Your task to perform on an android device: Go to Reddit.com Image 0: 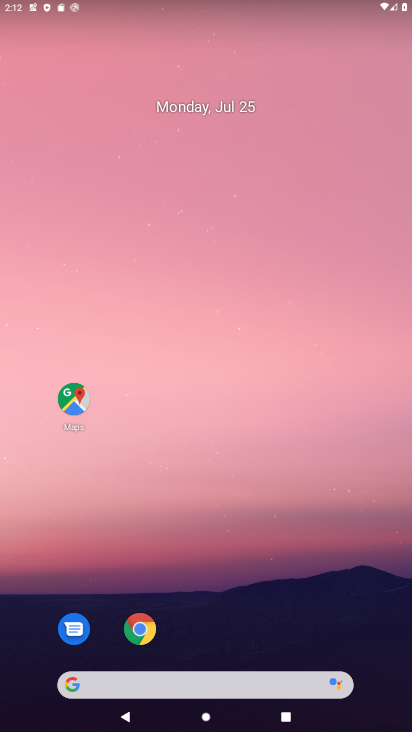
Step 0: click (143, 627)
Your task to perform on an android device: Go to Reddit.com Image 1: 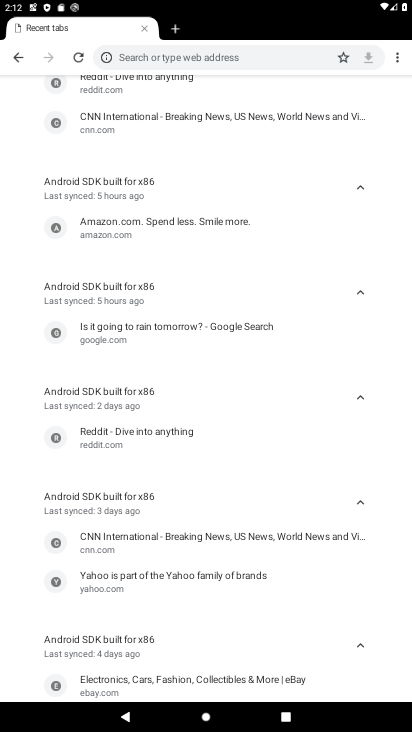
Step 1: drag from (221, 236) to (212, 311)
Your task to perform on an android device: Go to Reddit.com Image 2: 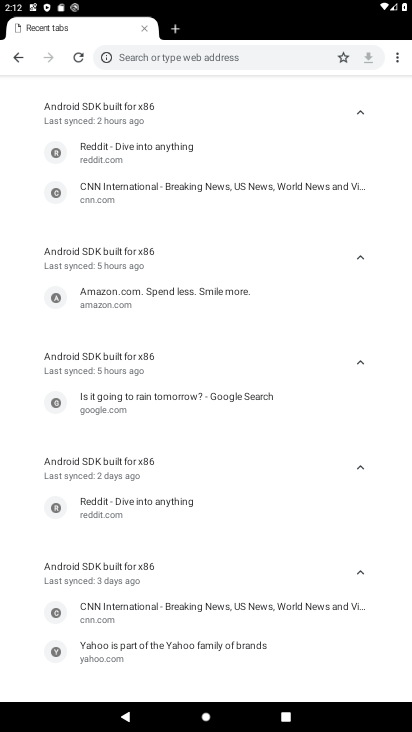
Step 2: click (126, 516)
Your task to perform on an android device: Go to Reddit.com Image 3: 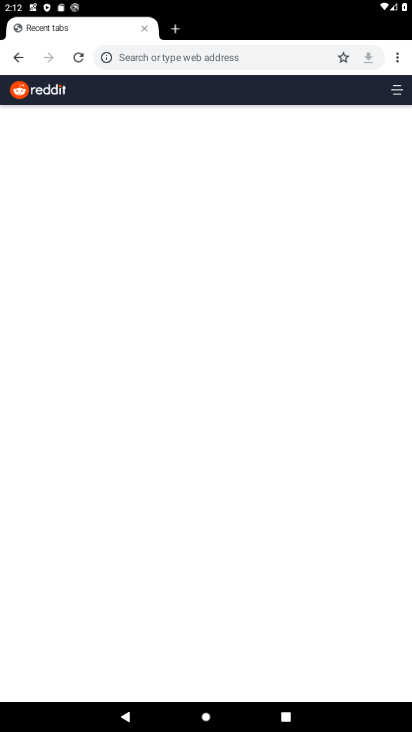
Step 3: click (114, 444)
Your task to perform on an android device: Go to Reddit.com Image 4: 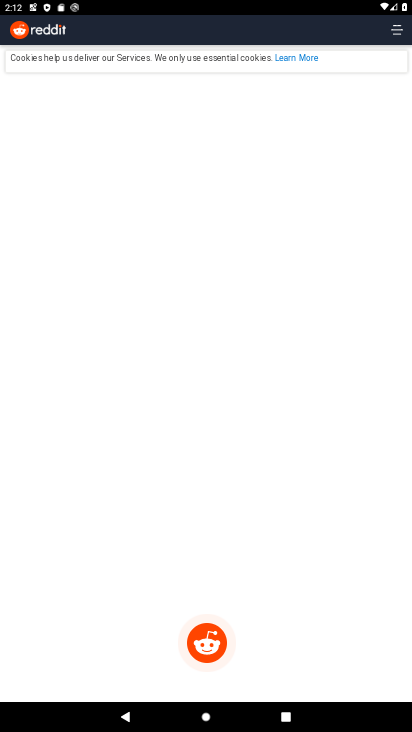
Step 4: task complete